Your task to perform on an android device: Search for "usb-c to usb-b" on newegg.com, select the first entry, and add it to the cart. Image 0: 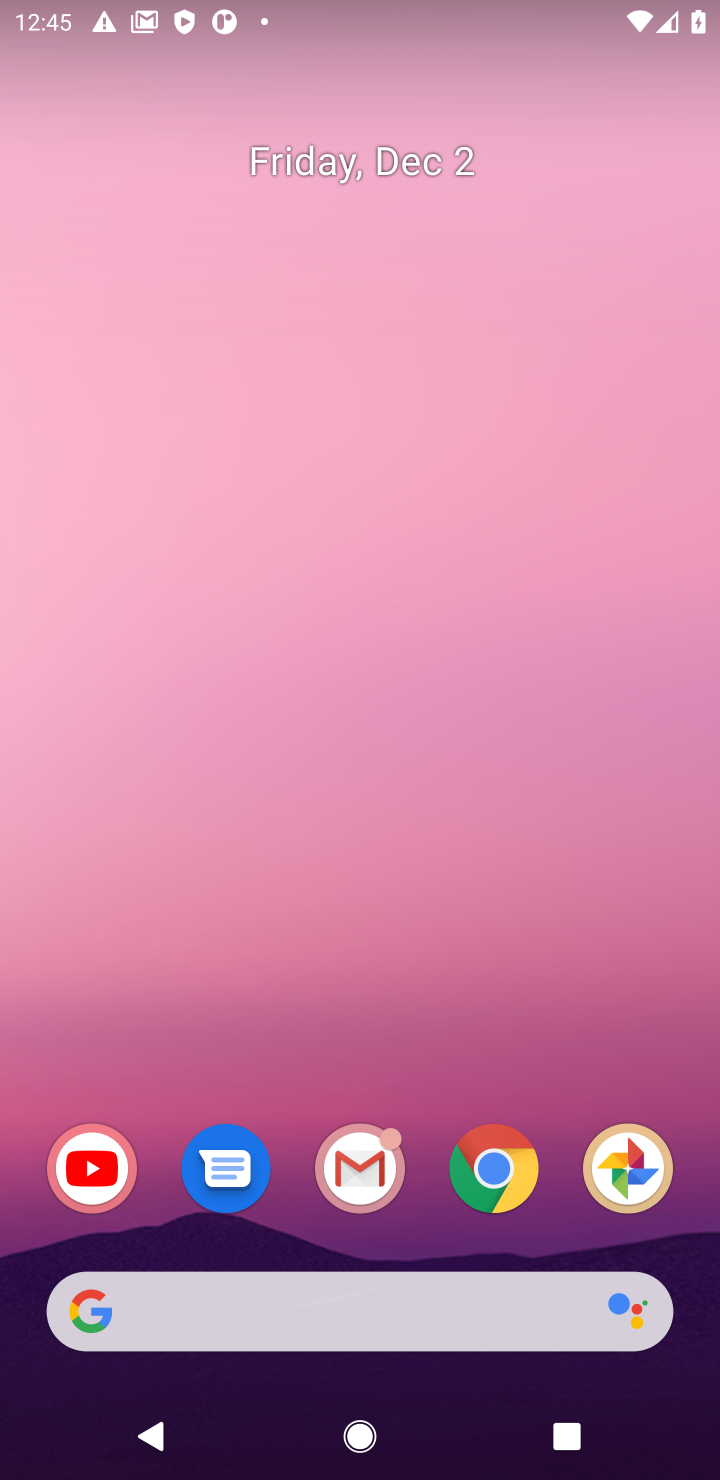
Step 0: click (495, 1171)
Your task to perform on an android device: Search for "usb-c to usb-b" on newegg.com, select the first entry, and add it to the cart. Image 1: 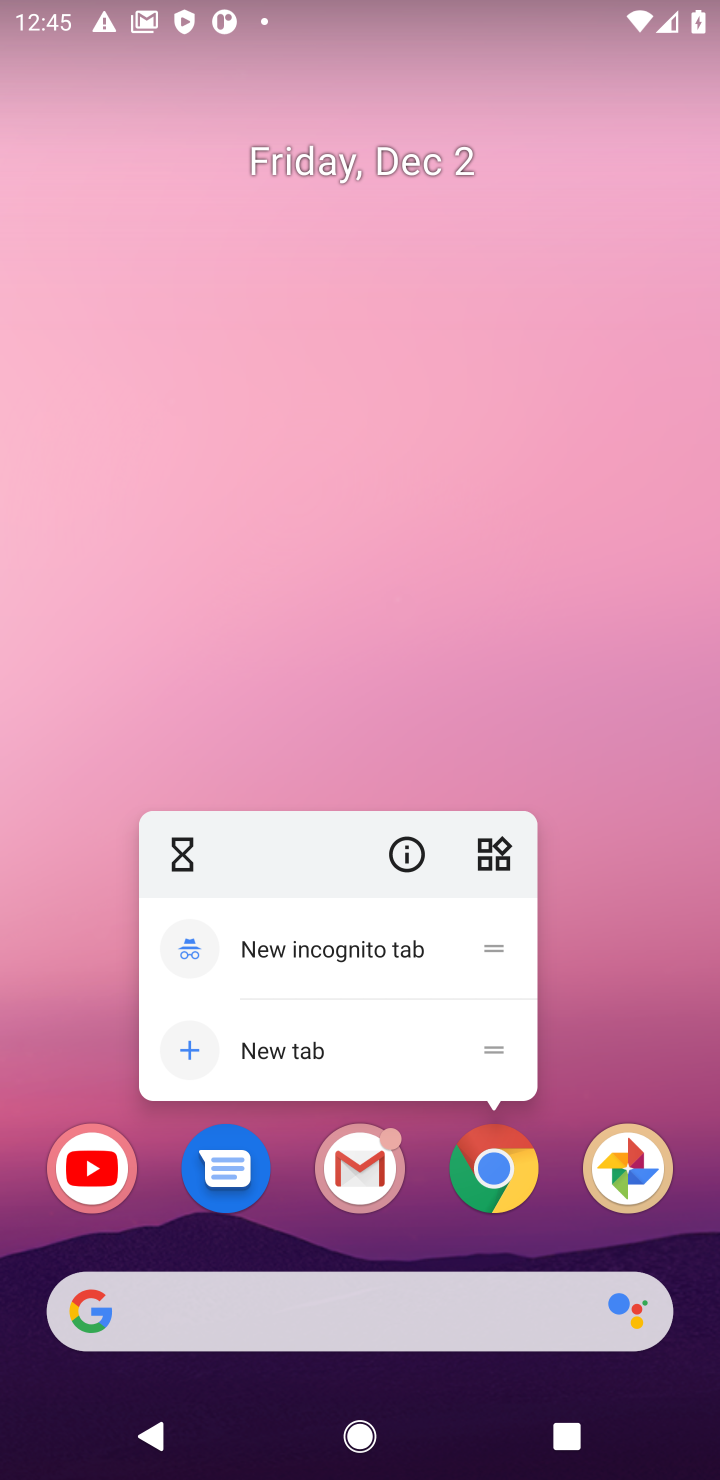
Step 1: click (495, 1171)
Your task to perform on an android device: Search for "usb-c to usb-b" on newegg.com, select the first entry, and add it to the cart. Image 2: 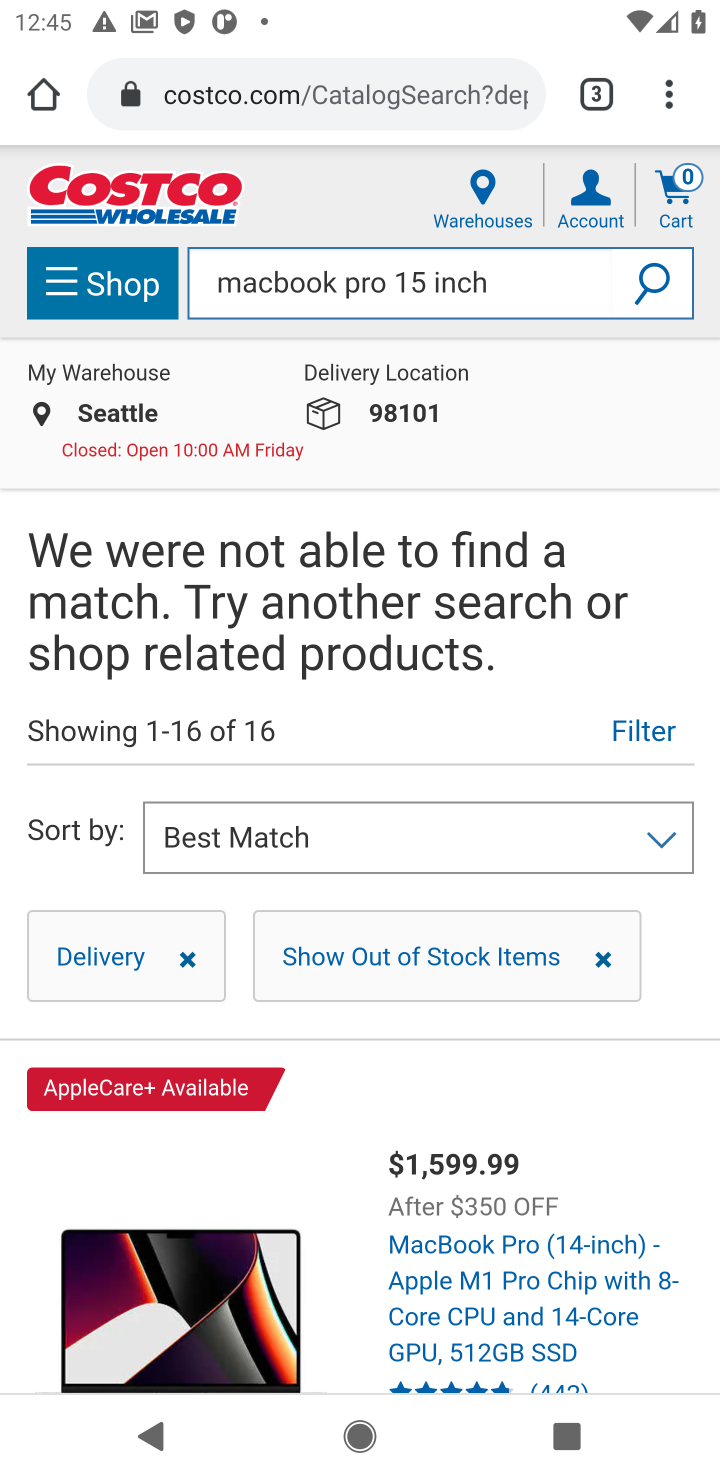
Step 2: click (239, 105)
Your task to perform on an android device: Search for "usb-c to usb-b" on newegg.com, select the first entry, and add it to the cart. Image 3: 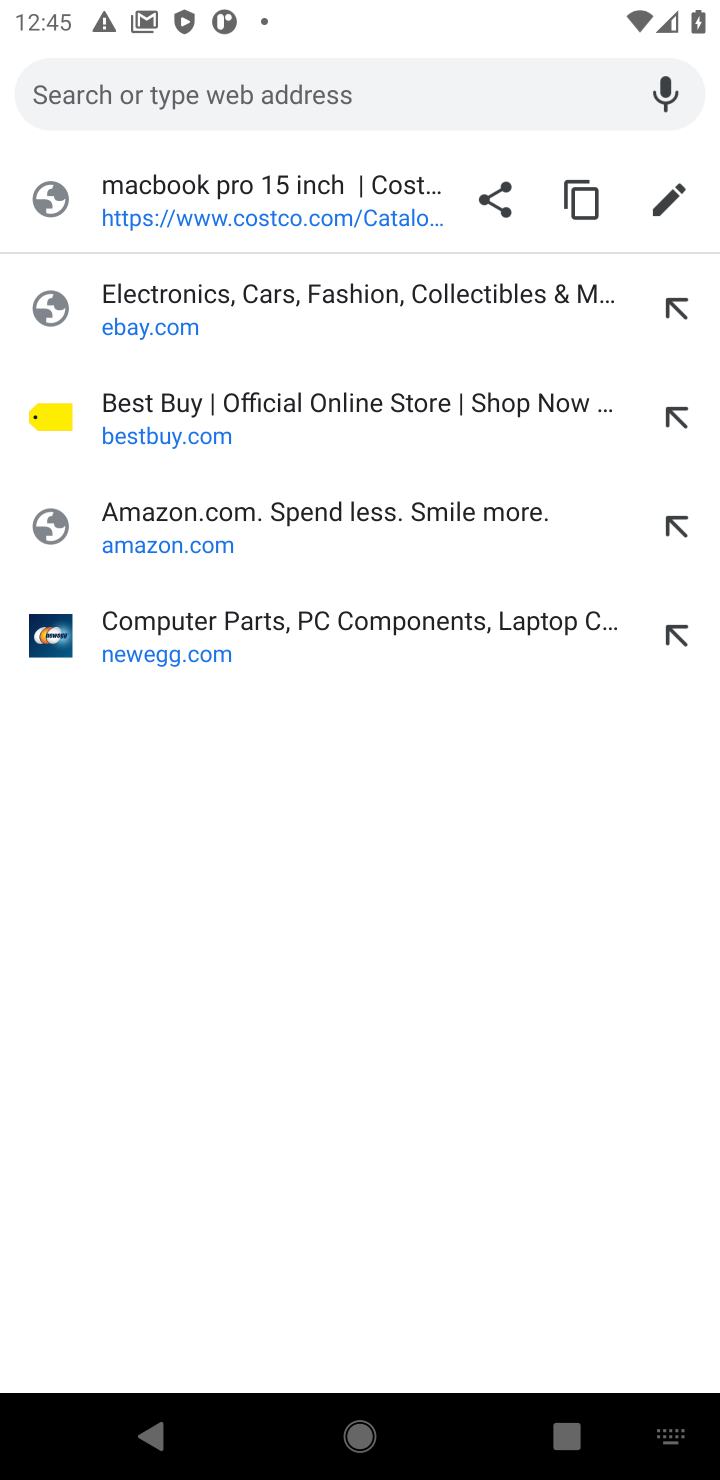
Step 3: click (136, 637)
Your task to perform on an android device: Search for "usb-c to usb-b" on newegg.com, select the first entry, and add it to the cart. Image 4: 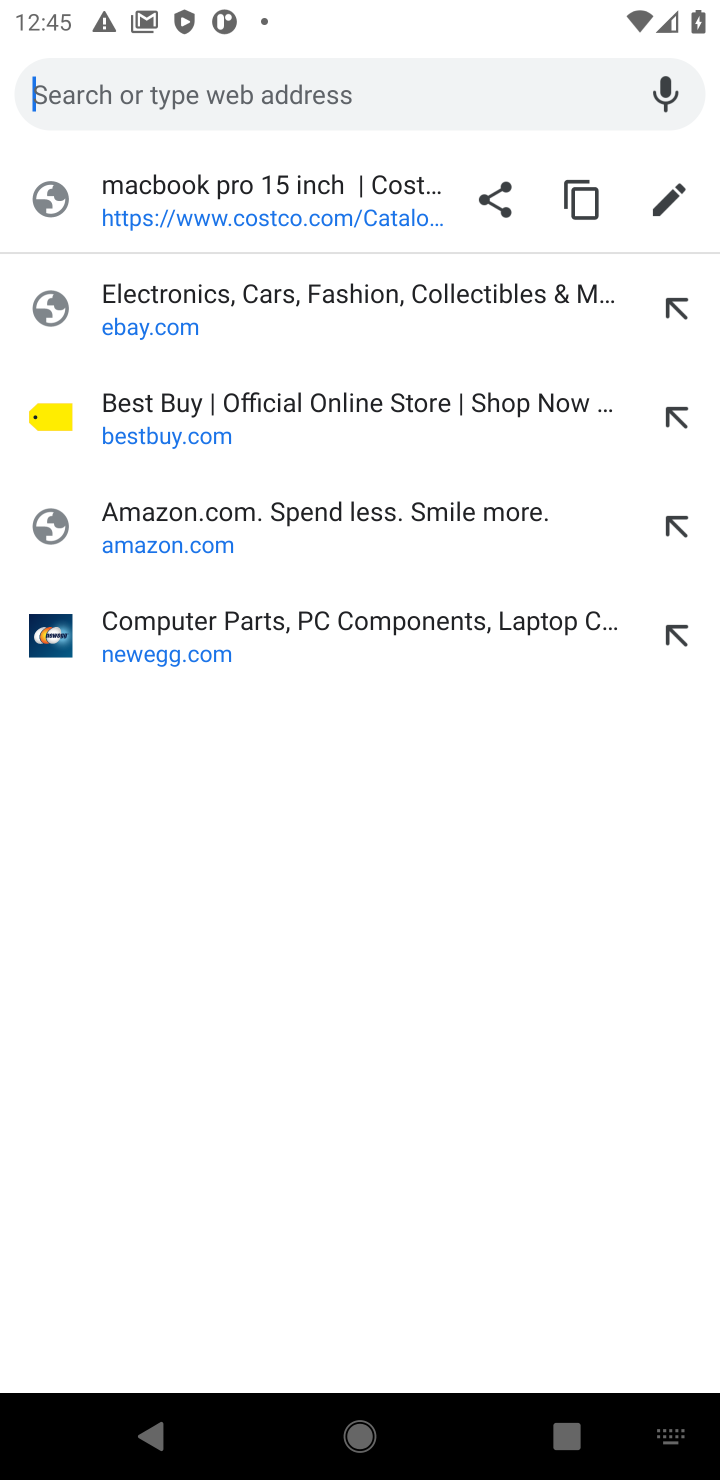
Step 4: click (122, 655)
Your task to perform on an android device: Search for "usb-c to usb-b" on newegg.com, select the first entry, and add it to the cart. Image 5: 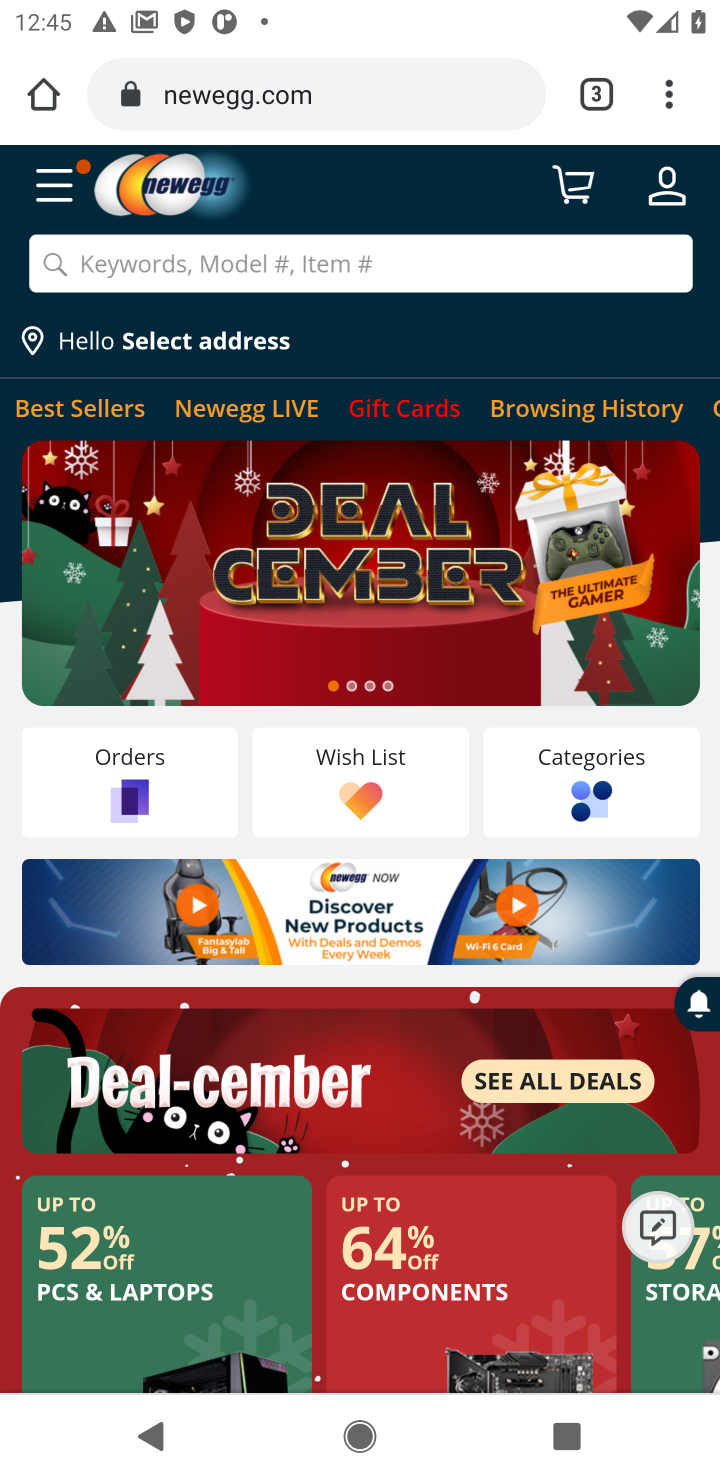
Step 5: click (227, 264)
Your task to perform on an android device: Search for "usb-c to usb-b" on newegg.com, select the first entry, and add it to the cart. Image 6: 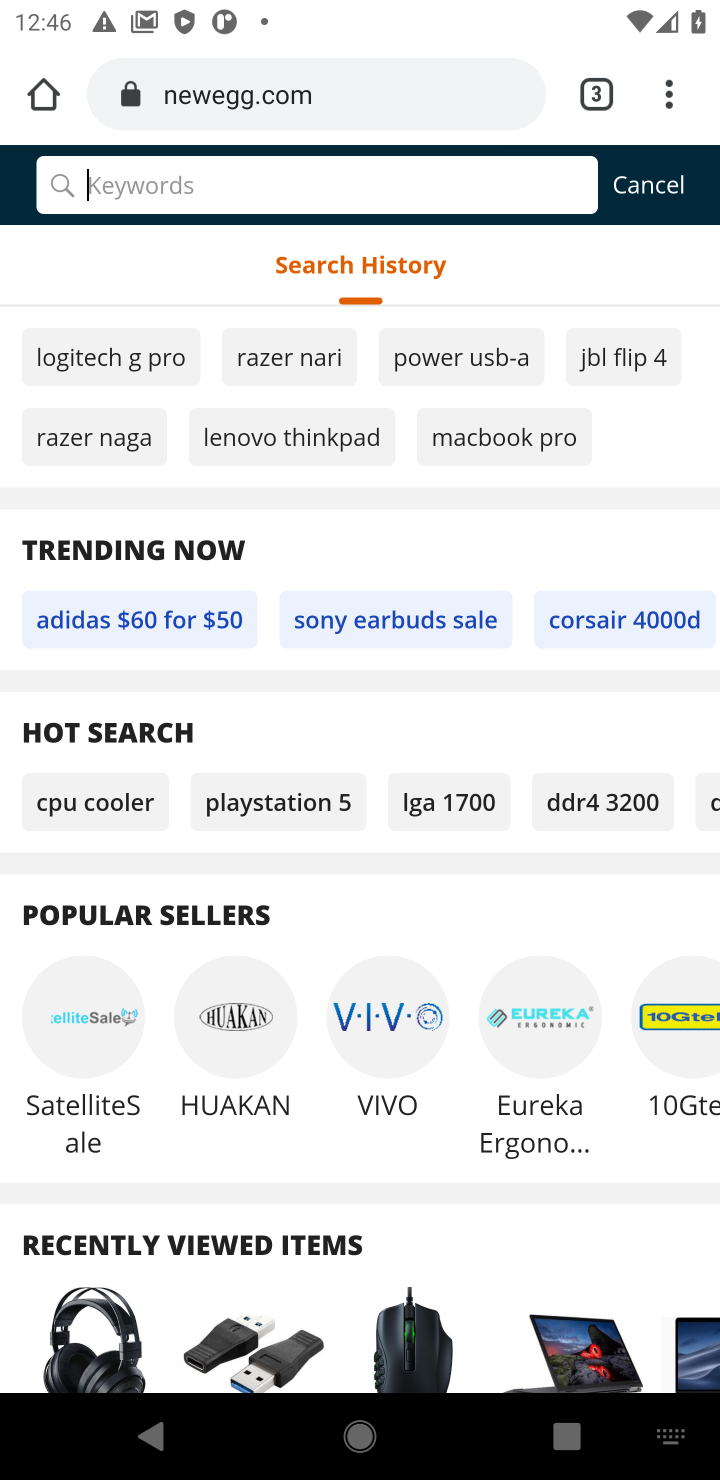
Step 6: type "usb-c to usb-b"
Your task to perform on an android device: Search for "usb-c to usb-b" on newegg.com, select the first entry, and add it to the cart. Image 7: 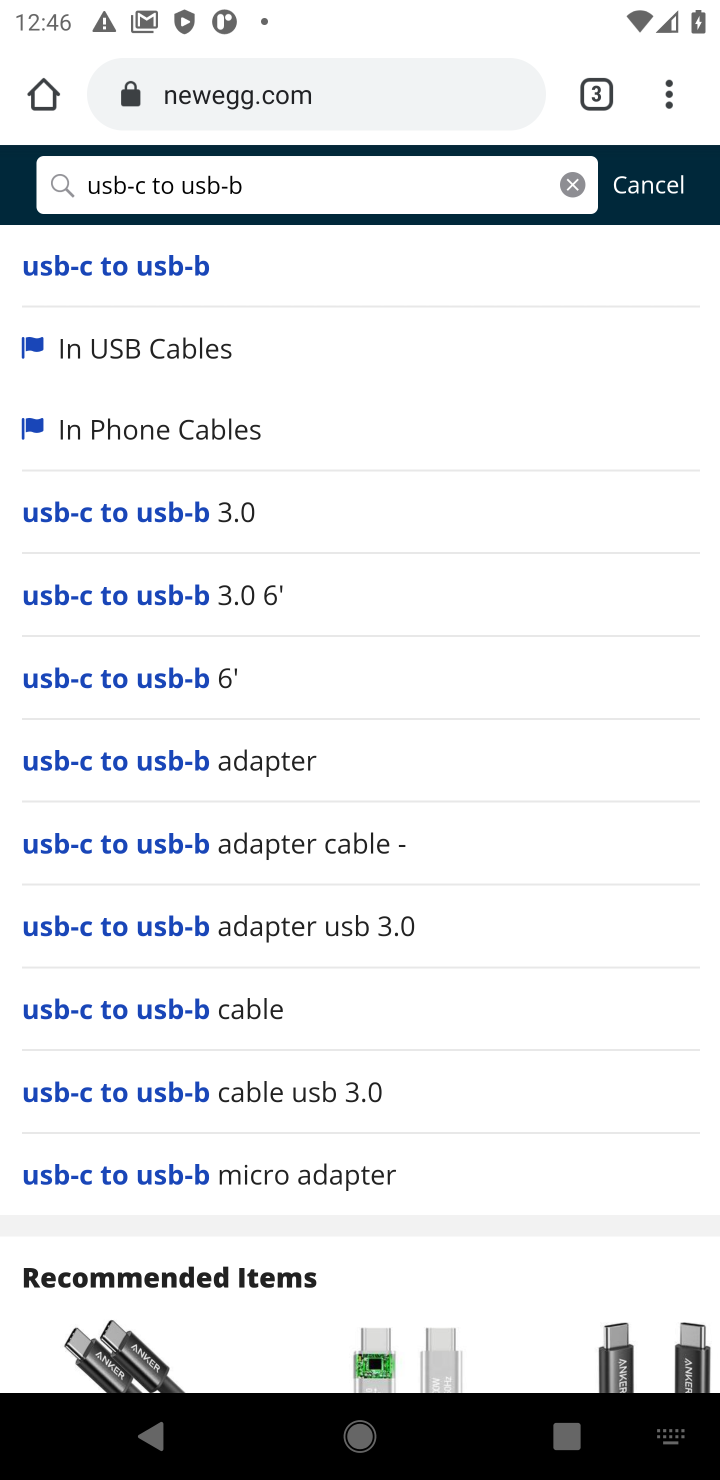
Step 7: click (134, 267)
Your task to perform on an android device: Search for "usb-c to usb-b" on newegg.com, select the first entry, and add it to the cart. Image 8: 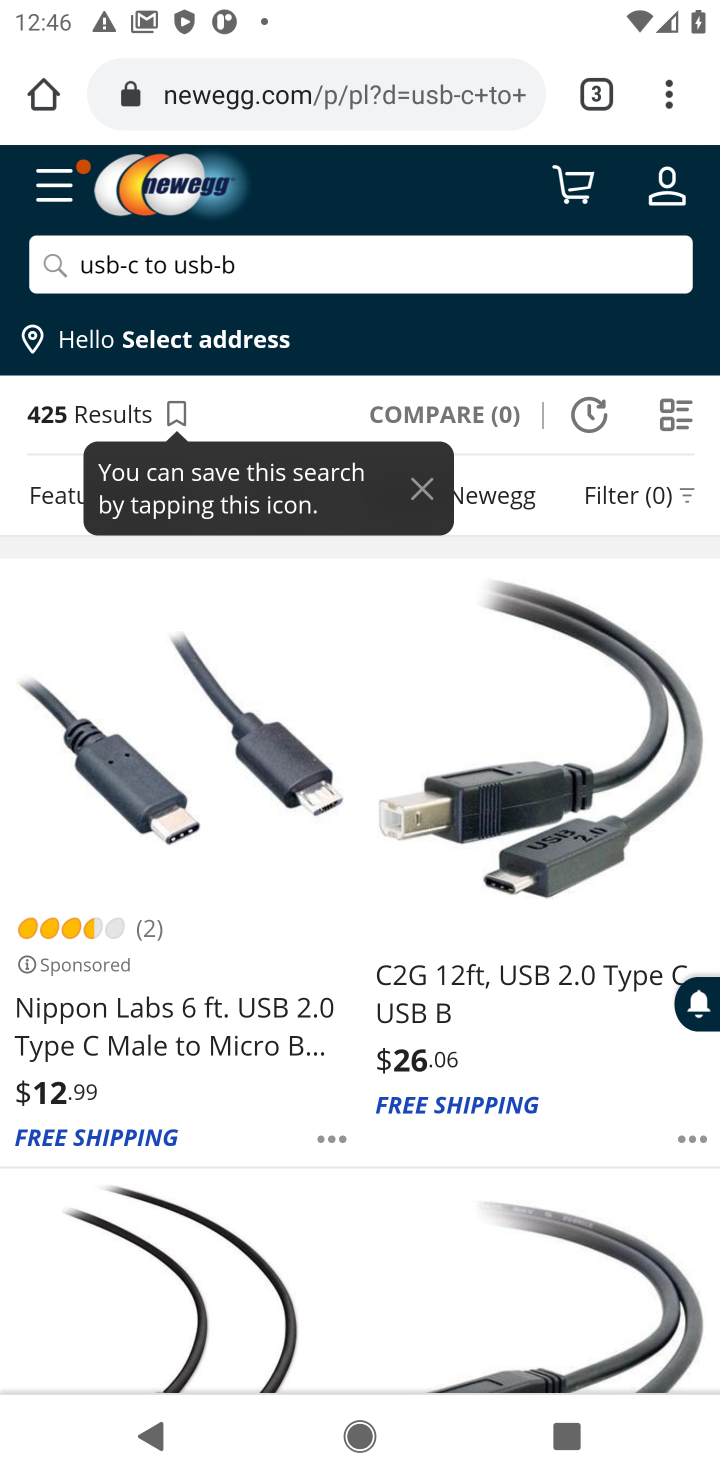
Step 8: click (141, 847)
Your task to perform on an android device: Search for "usb-c to usb-b" on newegg.com, select the first entry, and add it to the cart. Image 9: 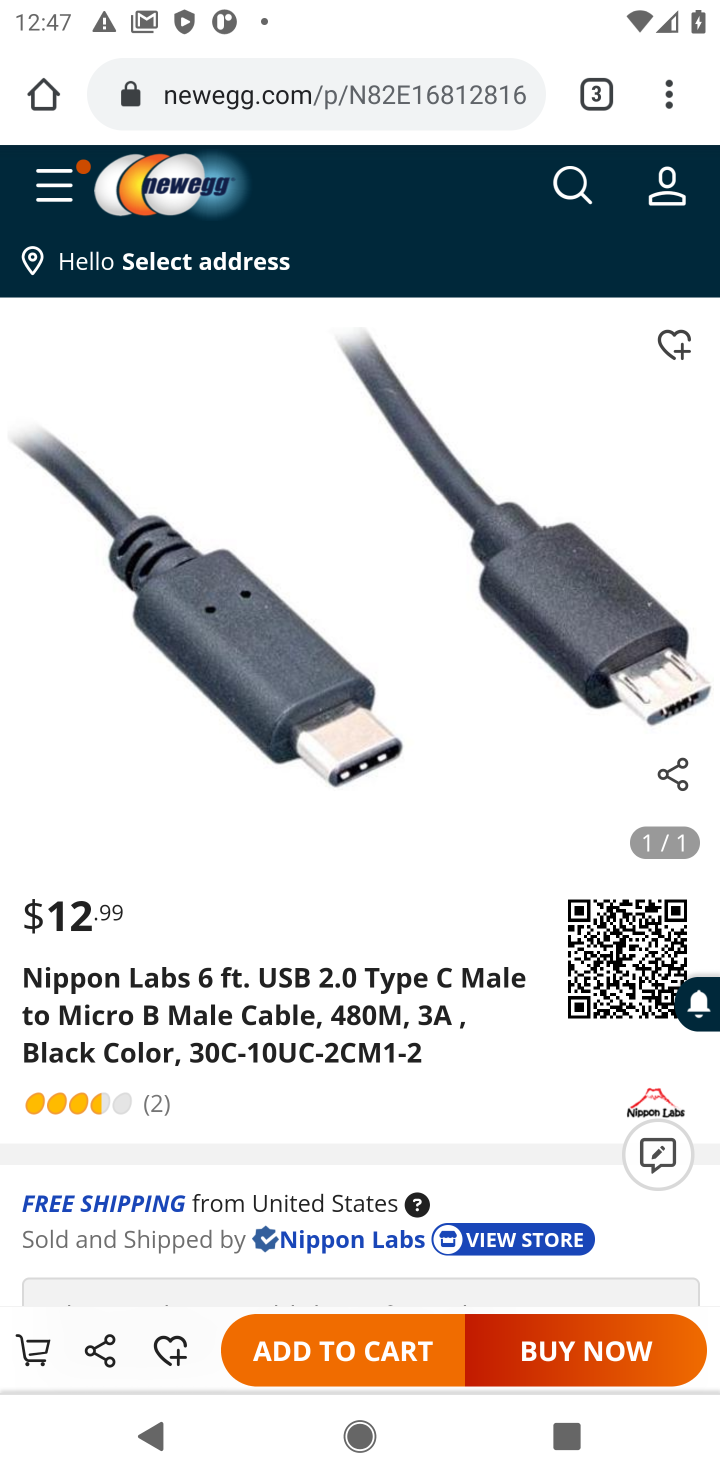
Step 9: task complete